Your task to perform on an android device: check battery use Image 0: 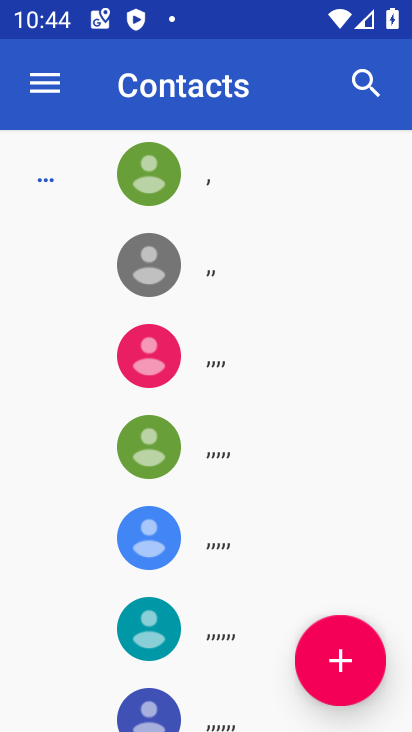
Step 0: press back button
Your task to perform on an android device: check battery use Image 1: 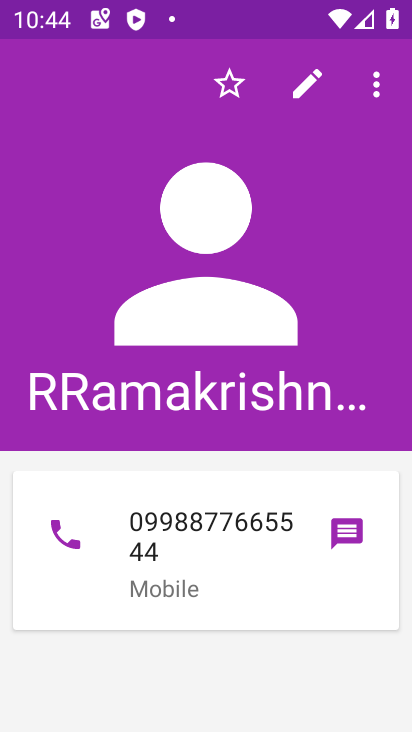
Step 1: press back button
Your task to perform on an android device: check battery use Image 2: 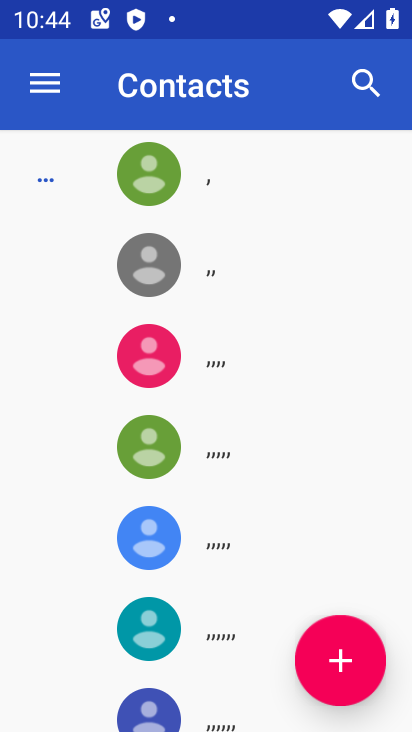
Step 2: press back button
Your task to perform on an android device: check battery use Image 3: 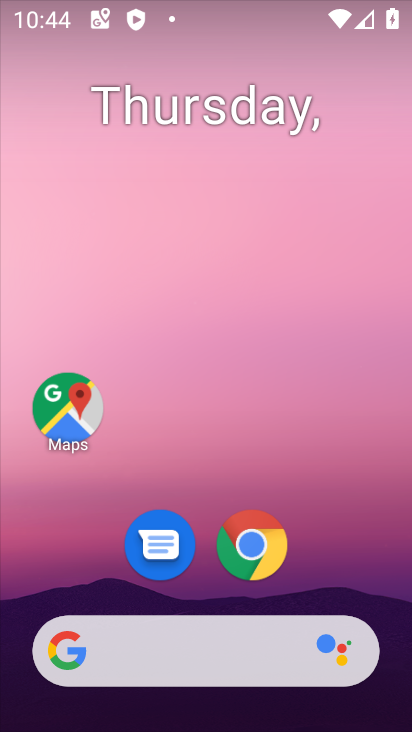
Step 3: drag from (333, 554) to (239, 109)
Your task to perform on an android device: check battery use Image 4: 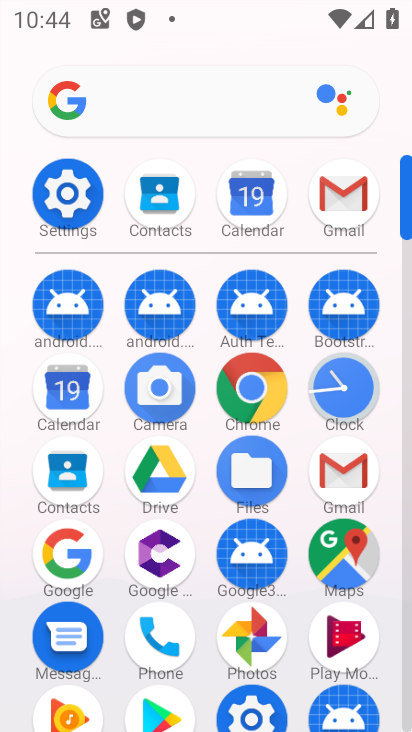
Step 4: click (67, 193)
Your task to perform on an android device: check battery use Image 5: 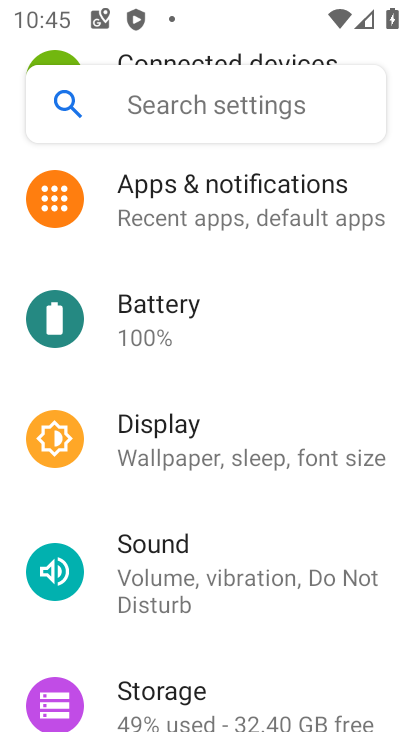
Step 5: click (175, 324)
Your task to perform on an android device: check battery use Image 6: 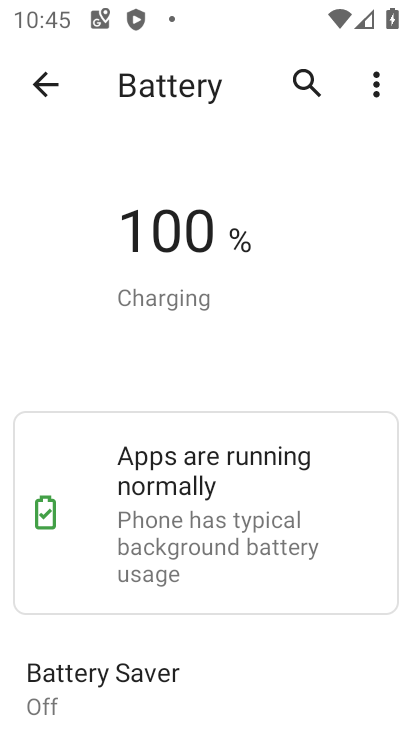
Step 6: click (375, 80)
Your task to perform on an android device: check battery use Image 7: 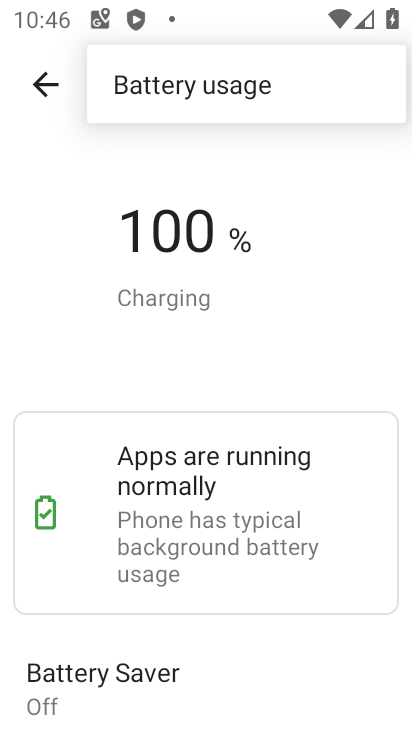
Step 7: click (245, 89)
Your task to perform on an android device: check battery use Image 8: 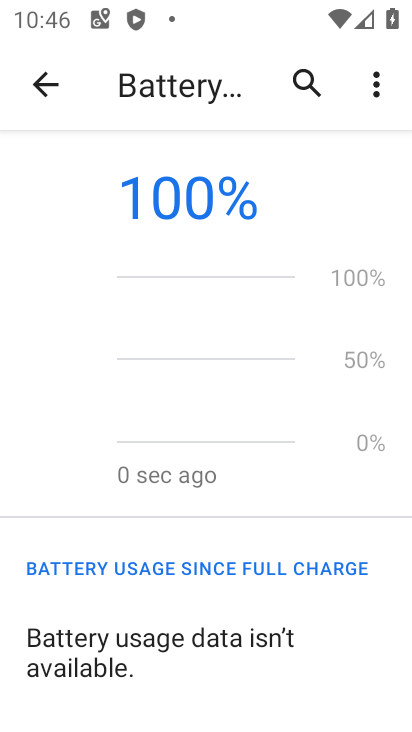
Step 8: task complete